Your task to perform on an android device: find which apps use the phone's location Image 0: 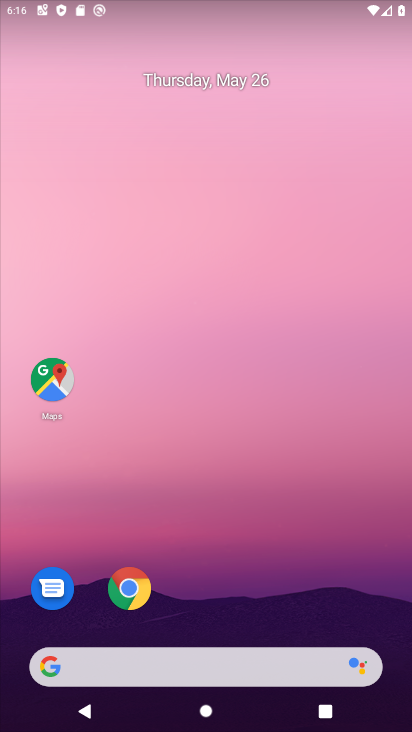
Step 0: drag from (405, 607) to (341, 74)
Your task to perform on an android device: find which apps use the phone's location Image 1: 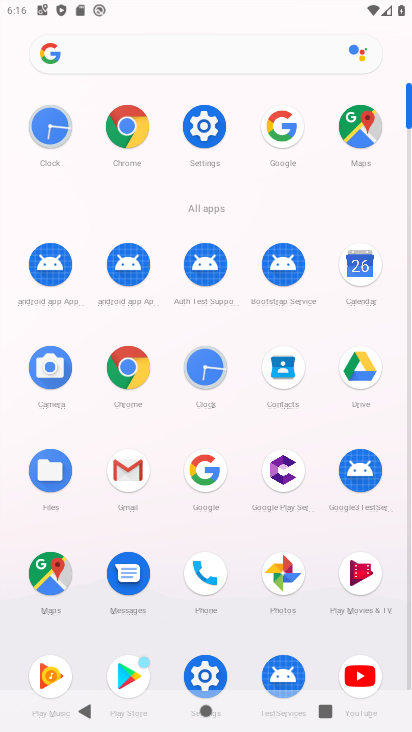
Step 1: click (220, 138)
Your task to perform on an android device: find which apps use the phone's location Image 2: 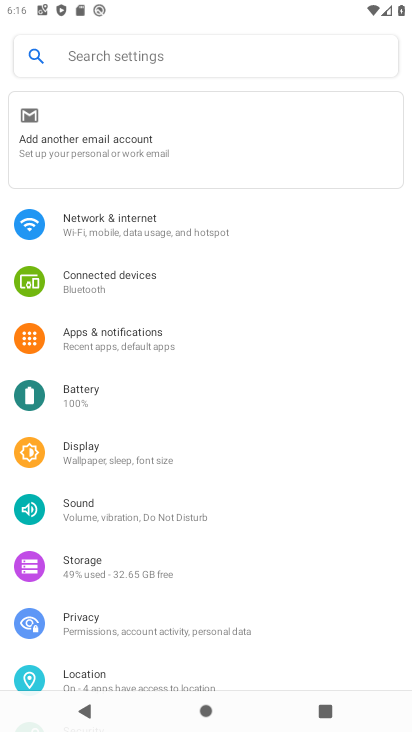
Step 2: click (144, 679)
Your task to perform on an android device: find which apps use the phone's location Image 3: 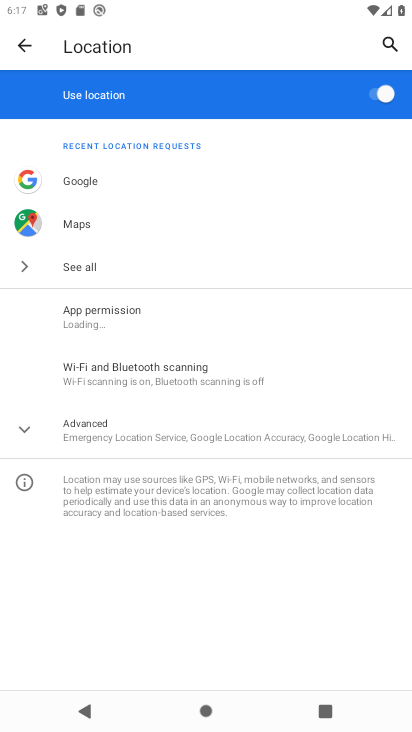
Step 3: click (113, 317)
Your task to perform on an android device: find which apps use the phone's location Image 4: 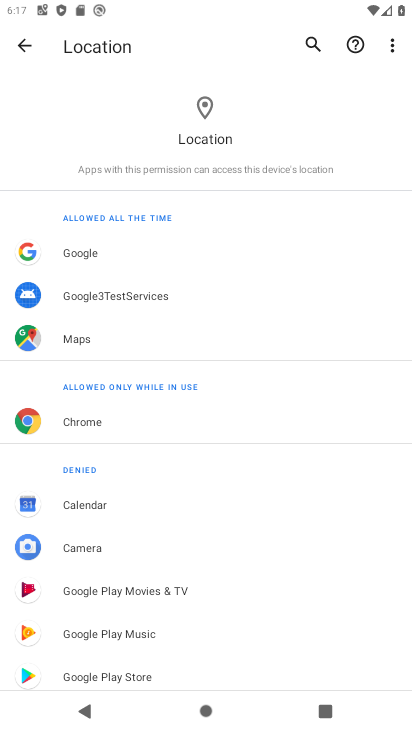
Step 4: drag from (75, 611) to (147, 279)
Your task to perform on an android device: find which apps use the phone's location Image 5: 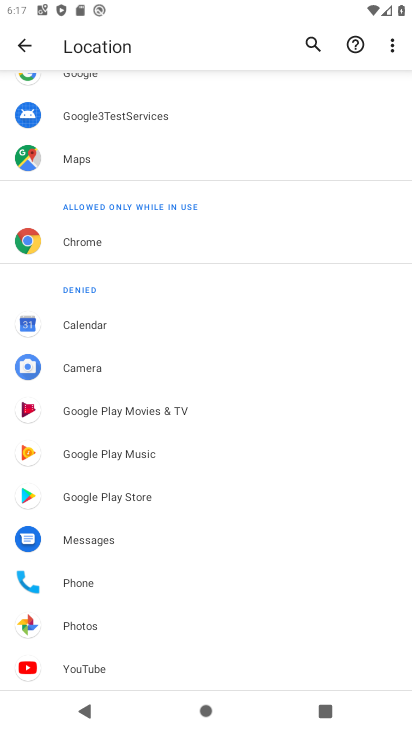
Step 5: click (38, 582)
Your task to perform on an android device: find which apps use the phone's location Image 6: 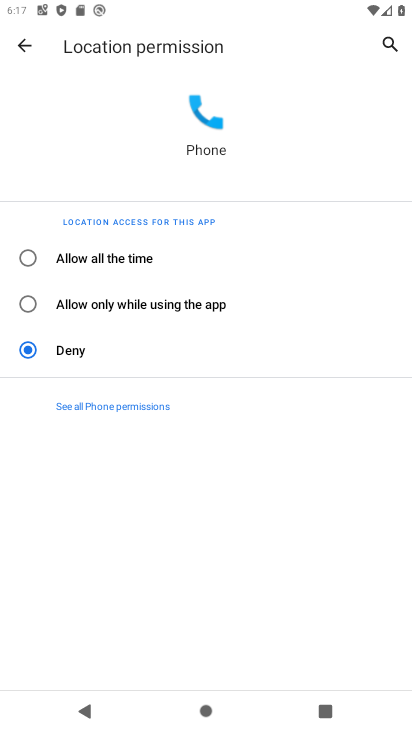
Step 6: click (43, 266)
Your task to perform on an android device: find which apps use the phone's location Image 7: 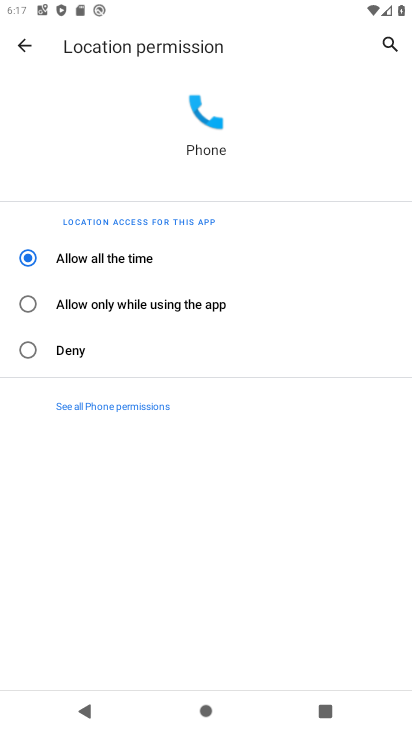
Step 7: task complete